Your task to perform on an android device: toggle pop-ups in chrome Image 0: 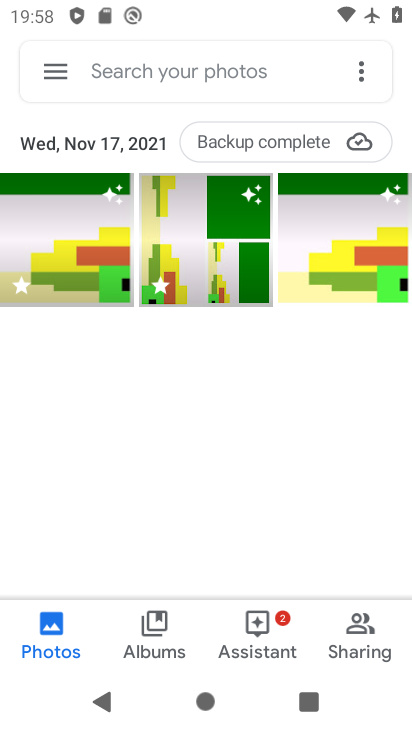
Step 0: press home button
Your task to perform on an android device: toggle pop-ups in chrome Image 1: 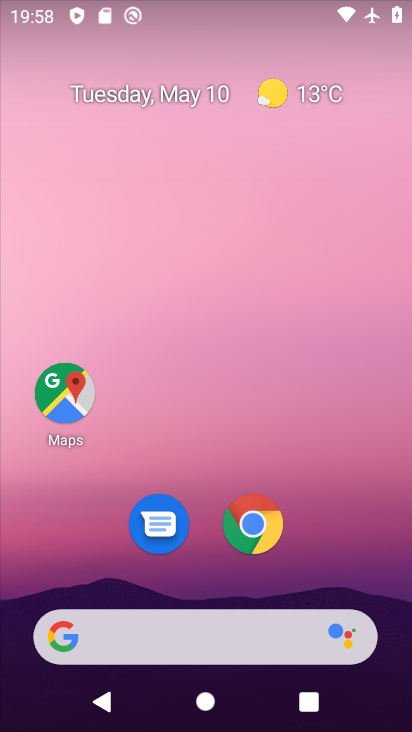
Step 1: click (244, 522)
Your task to perform on an android device: toggle pop-ups in chrome Image 2: 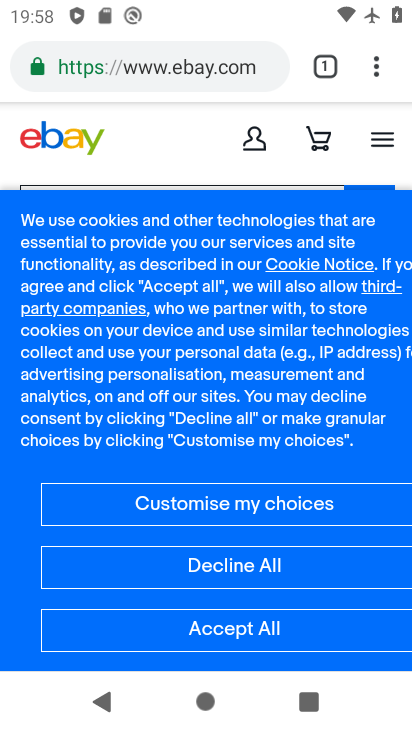
Step 2: click (373, 64)
Your task to perform on an android device: toggle pop-ups in chrome Image 3: 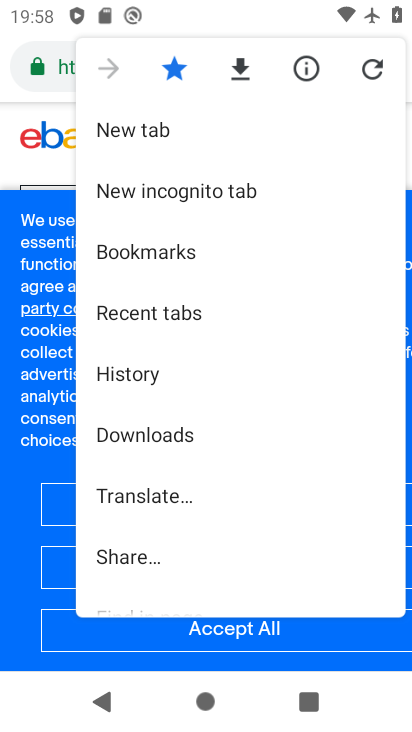
Step 3: drag from (270, 435) to (264, 148)
Your task to perform on an android device: toggle pop-ups in chrome Image 4: 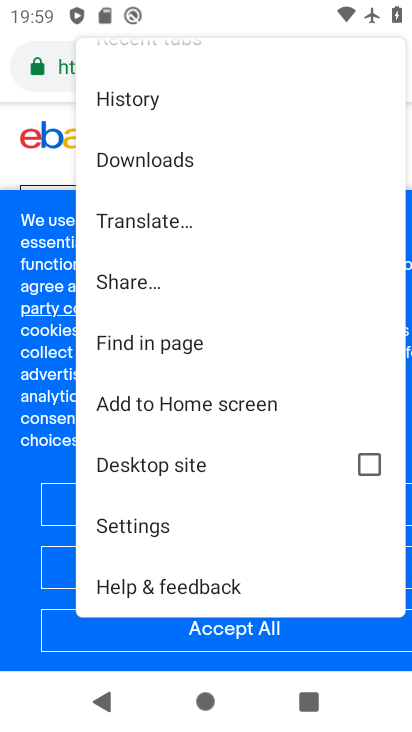
Step 4: click (177, 517)
Your task to perform on an android device: toggle pop-ups in chrome Image 5: 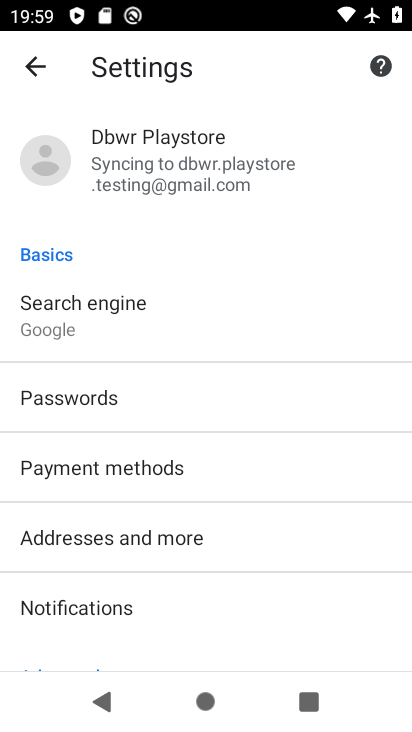
Step 5: drag from (266, 590) to (258, 156)
Your task to perform on an android device: toggle pop-ups in chrome Image 6: 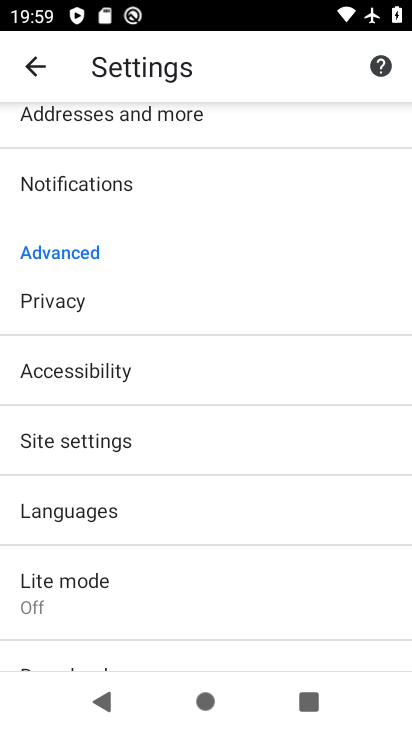
Step 6: click (203, 447)
Your task to perform on an android device: toggle pop-ups in chrome Image 7: 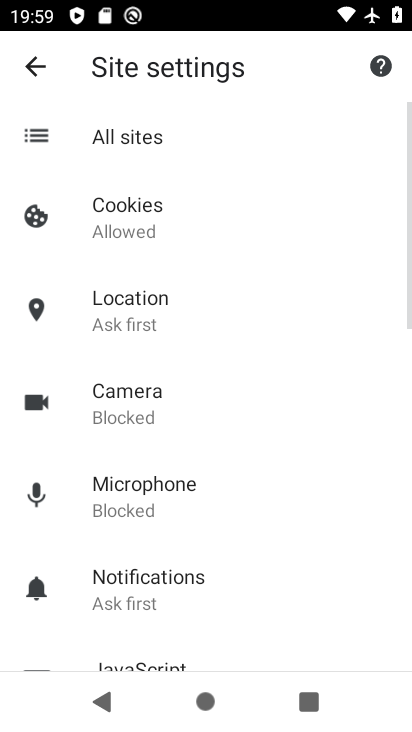
Step 7: drag from (265, 517) to (275, 172)
Your task to perform on an android device: toggle pop-ups in chrome Image 8: 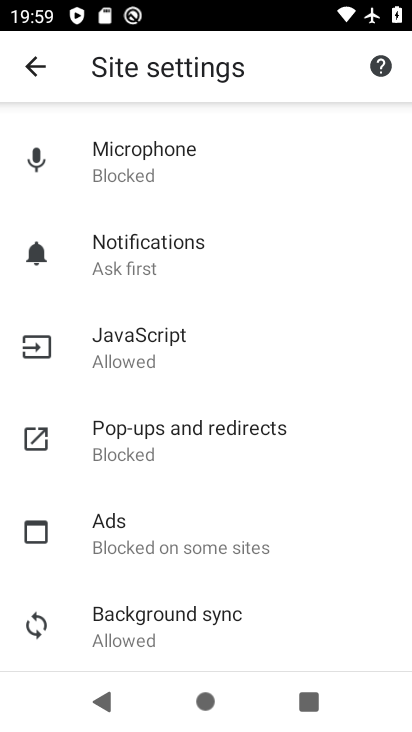
Step 8: click (245, 441)
Your task to perform on an android device: toggle pop-ups in chrome Image 9: 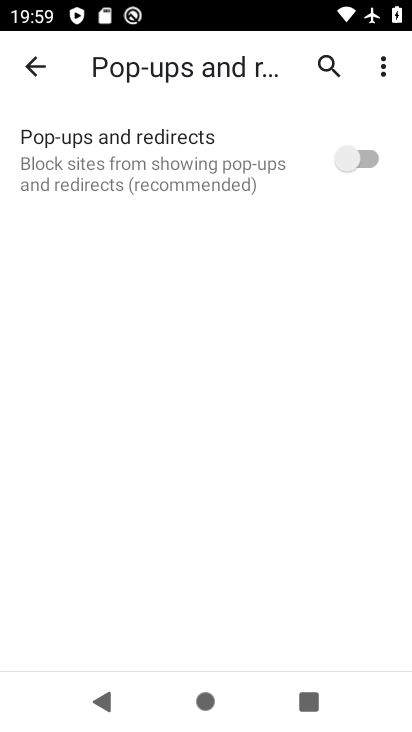
Step 9: click (353, 153)
Your task to perform on an android device: toggle pop-ups in chrome Image 10: 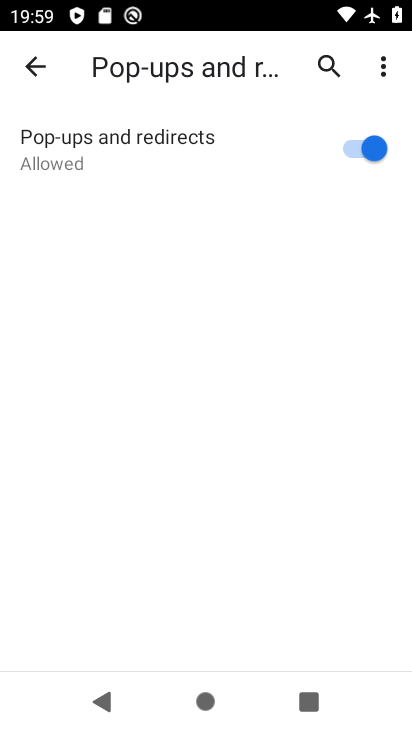
Step 10: task complete